Your task to perform on an android device: turn off translation in the chrome app Image 0: 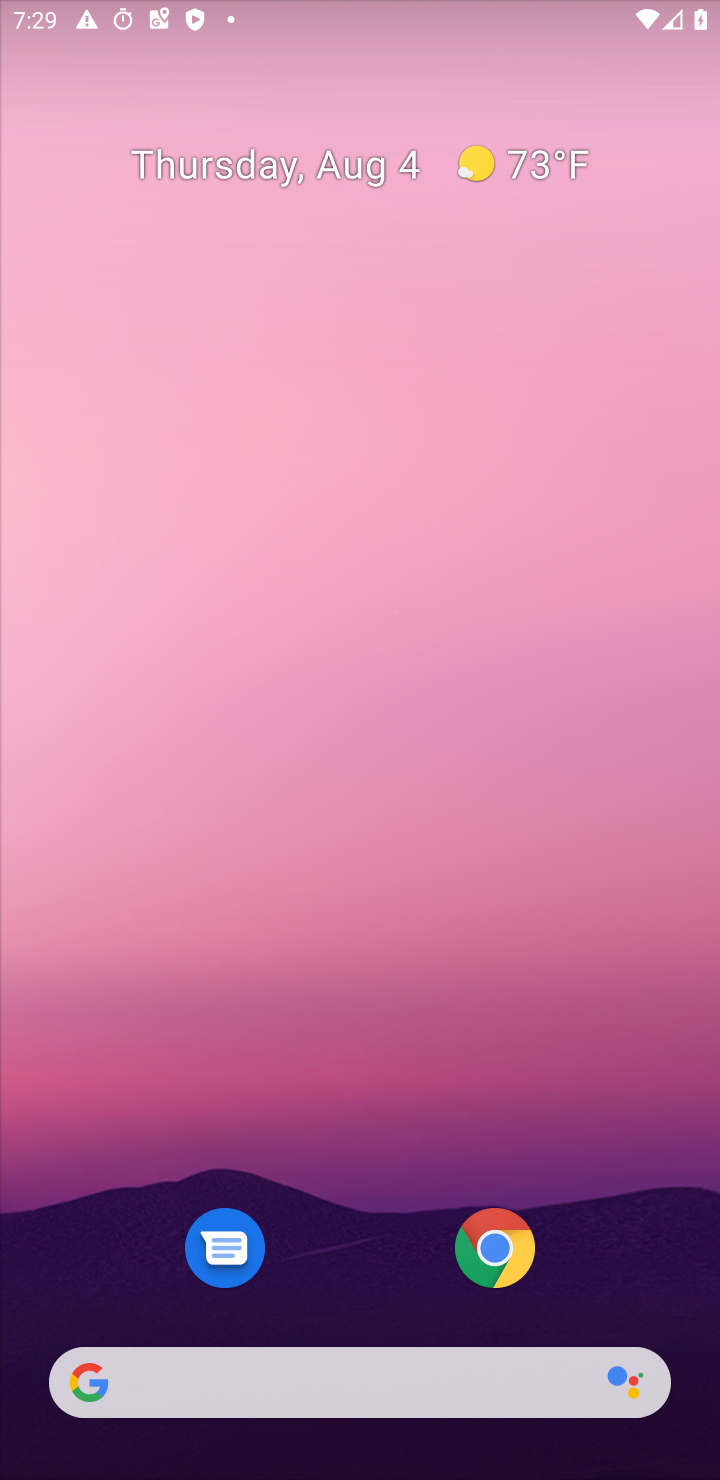
Step 0: press home button
Your task to perform on an android device: turn off translation in the chrome app Image 1: 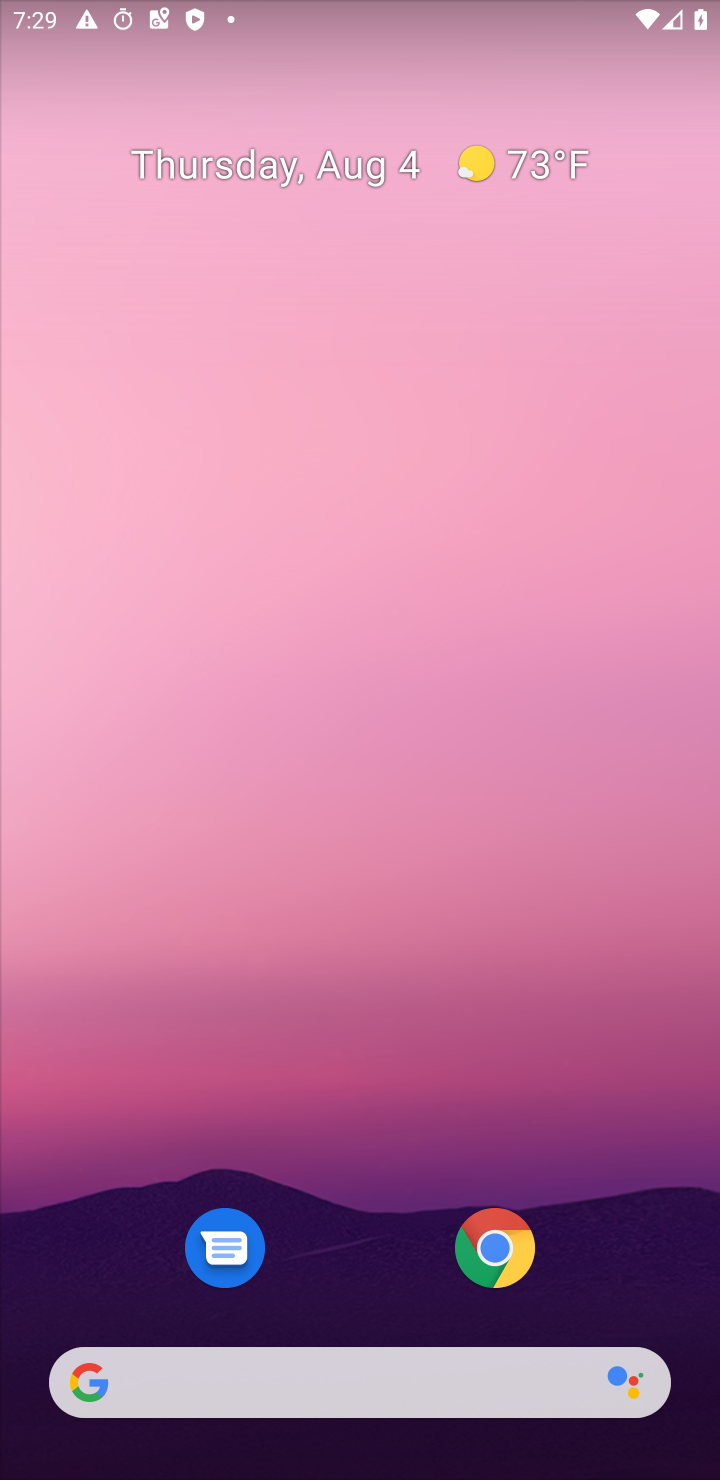
Step 1: drag from (392, 1401) to (450, 327)
Your task to perform on an android device: turn off translation in the chrome app Image 2: 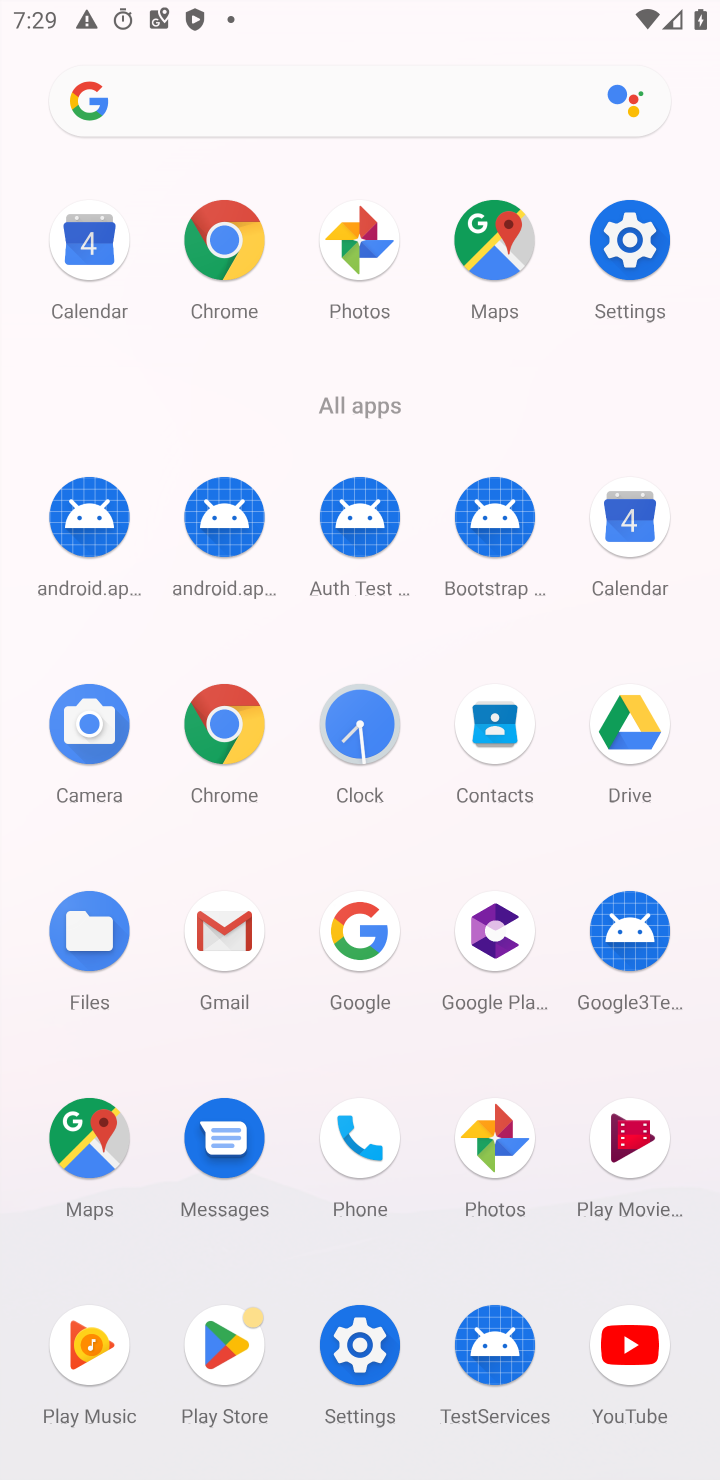
Step 2: click (228, 268)
Your task to perform on an android device: turn off translation in the chrome app Image 3: 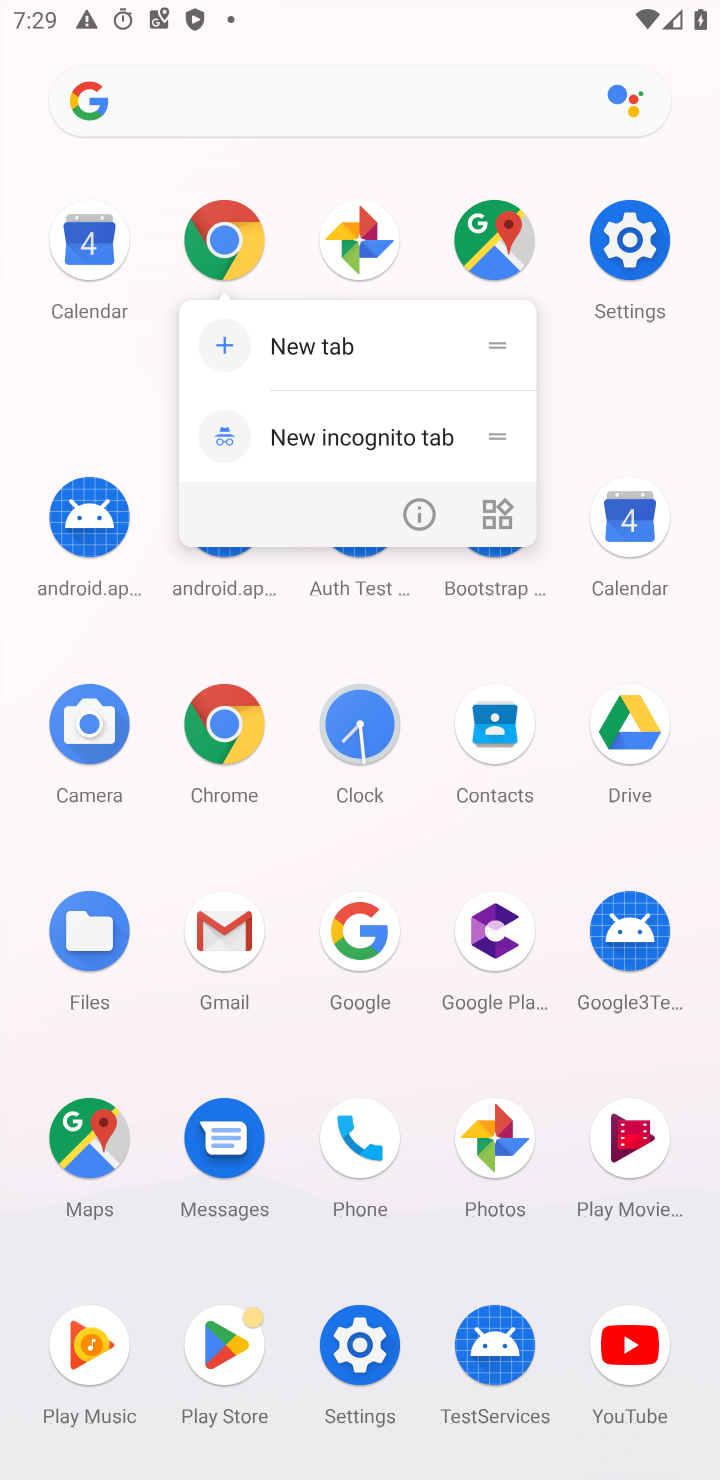
Step 3: click (224, 233)
Your task to perform on an android device: turn off translation in the chrome app Image 4: 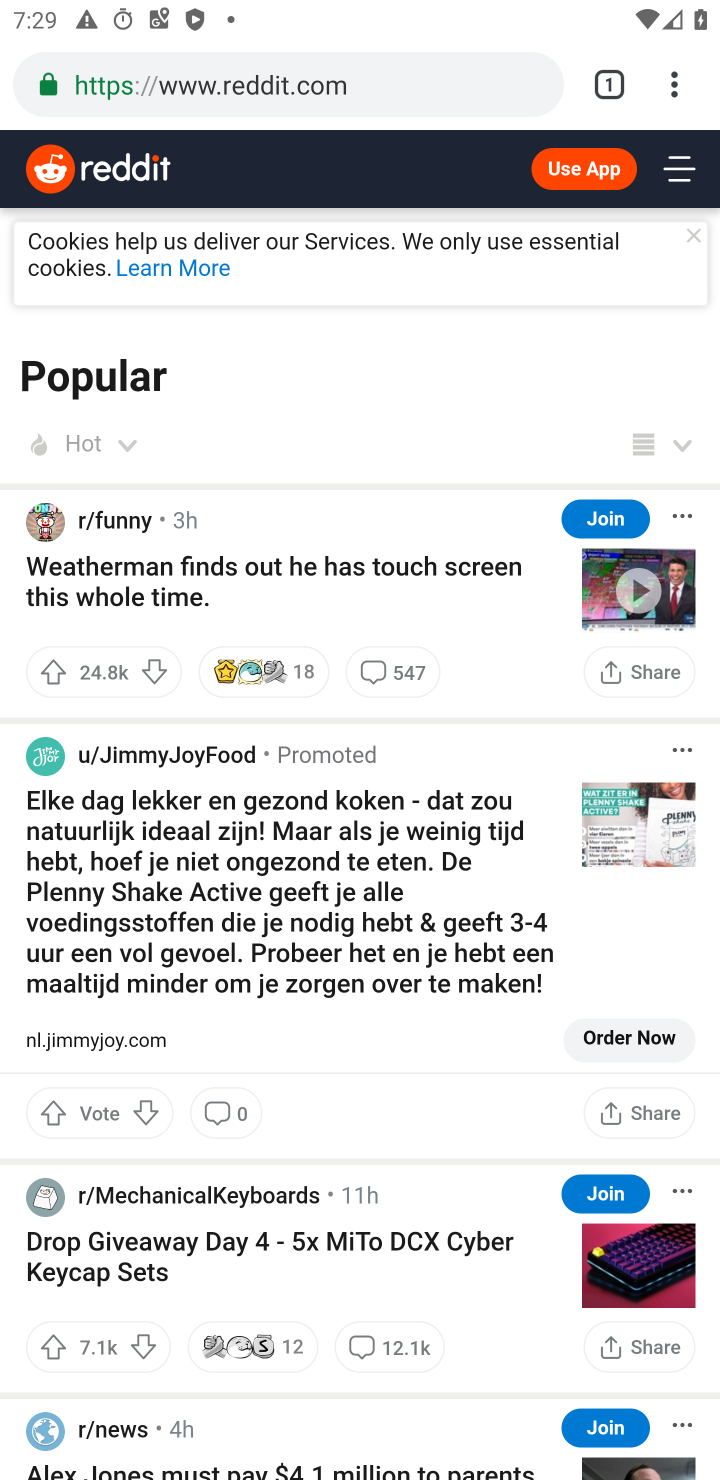
Step 4: click (678, 89)
Your task to perform on an android device: turn off translation in the chrome app Image 5: 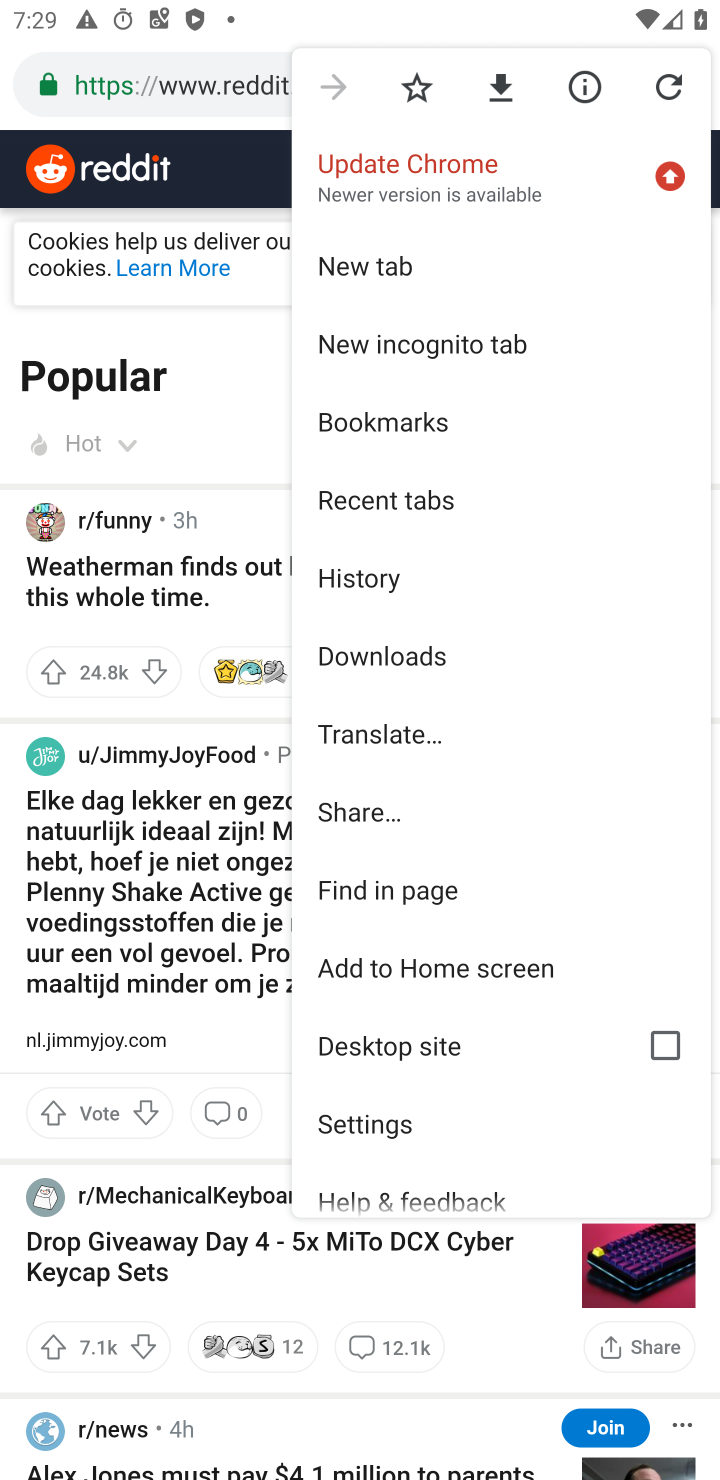
Step 5: click (404, 1118)
Your task to perform on an android device: turn off translation in the chrome app Image 6: 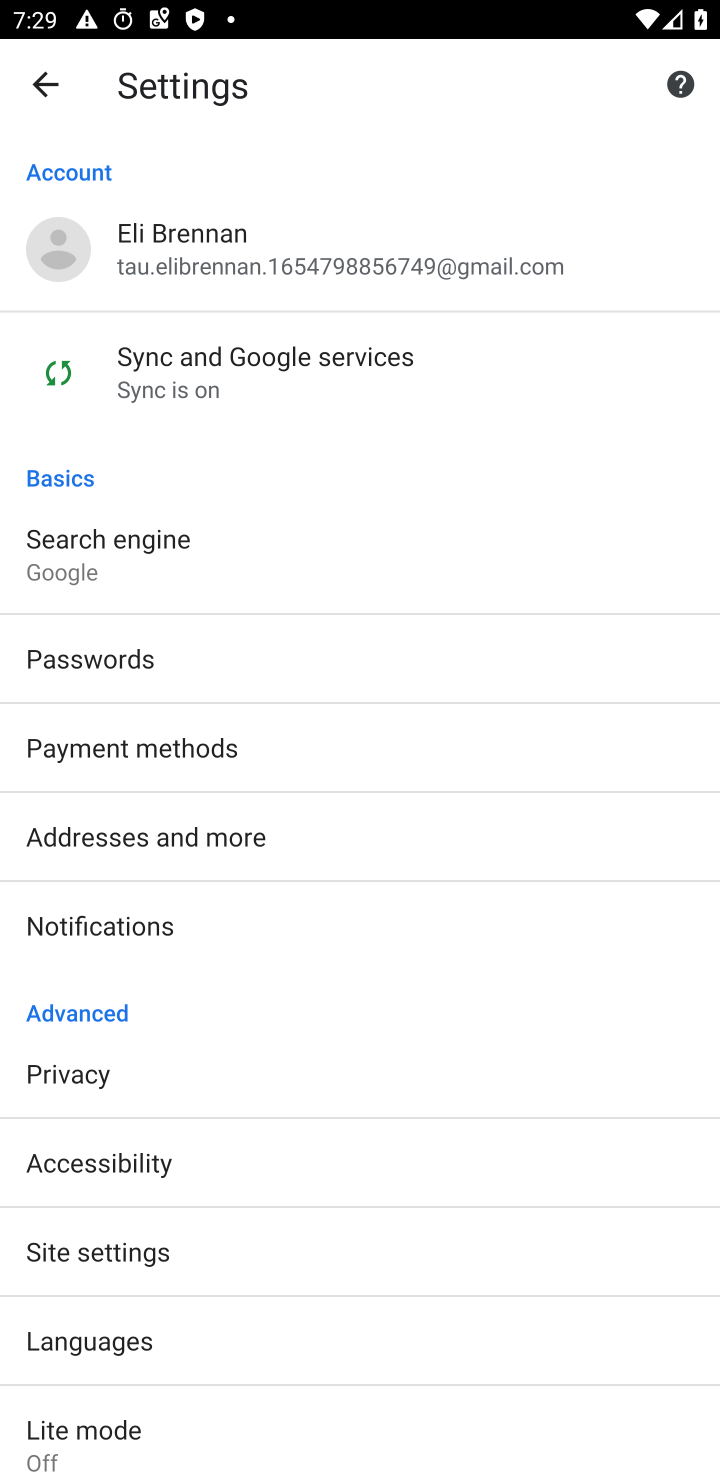
Step 6: click (121, 1331)
Your task to perform on an android device: turn off translation in the chrome app Image 7: 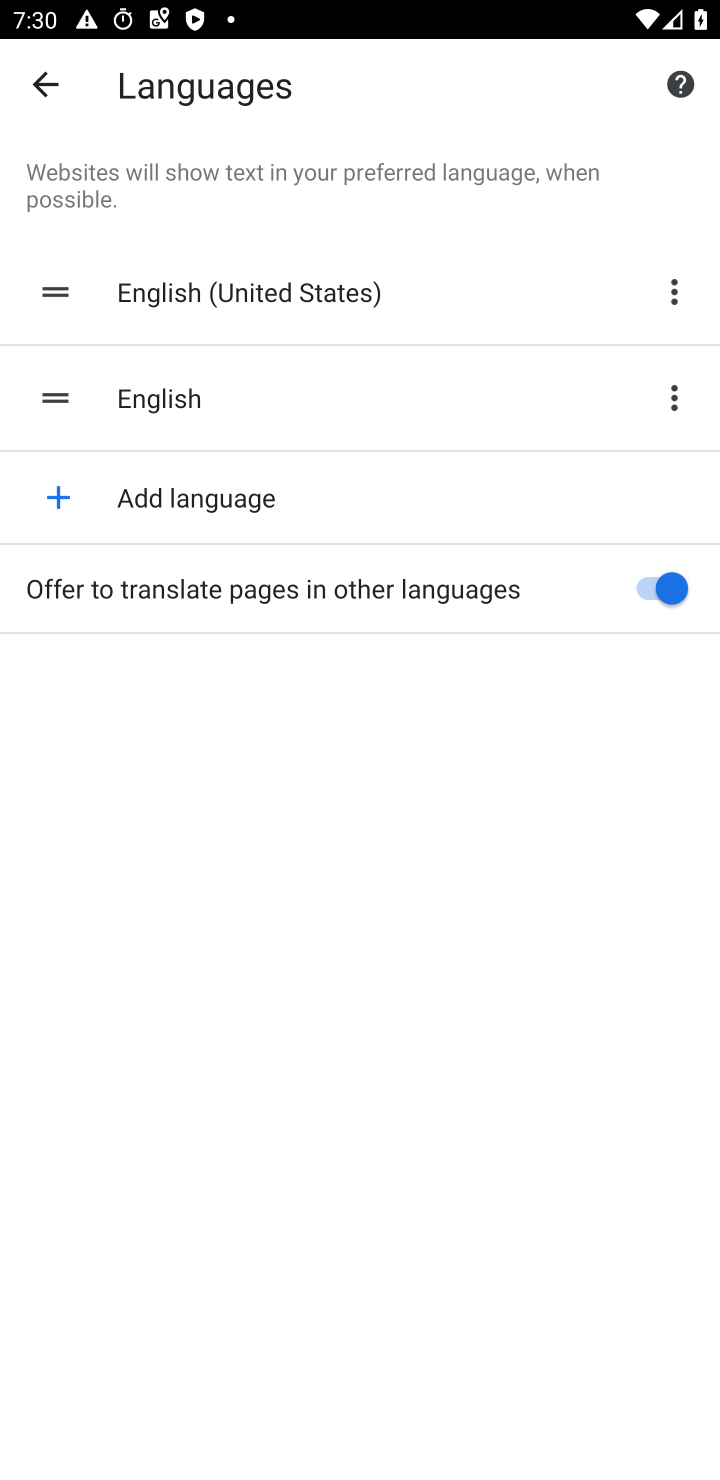
Step 7: click (575, 590)
Your task to perform on an android device: turn off translation in the chrome app Image 8: 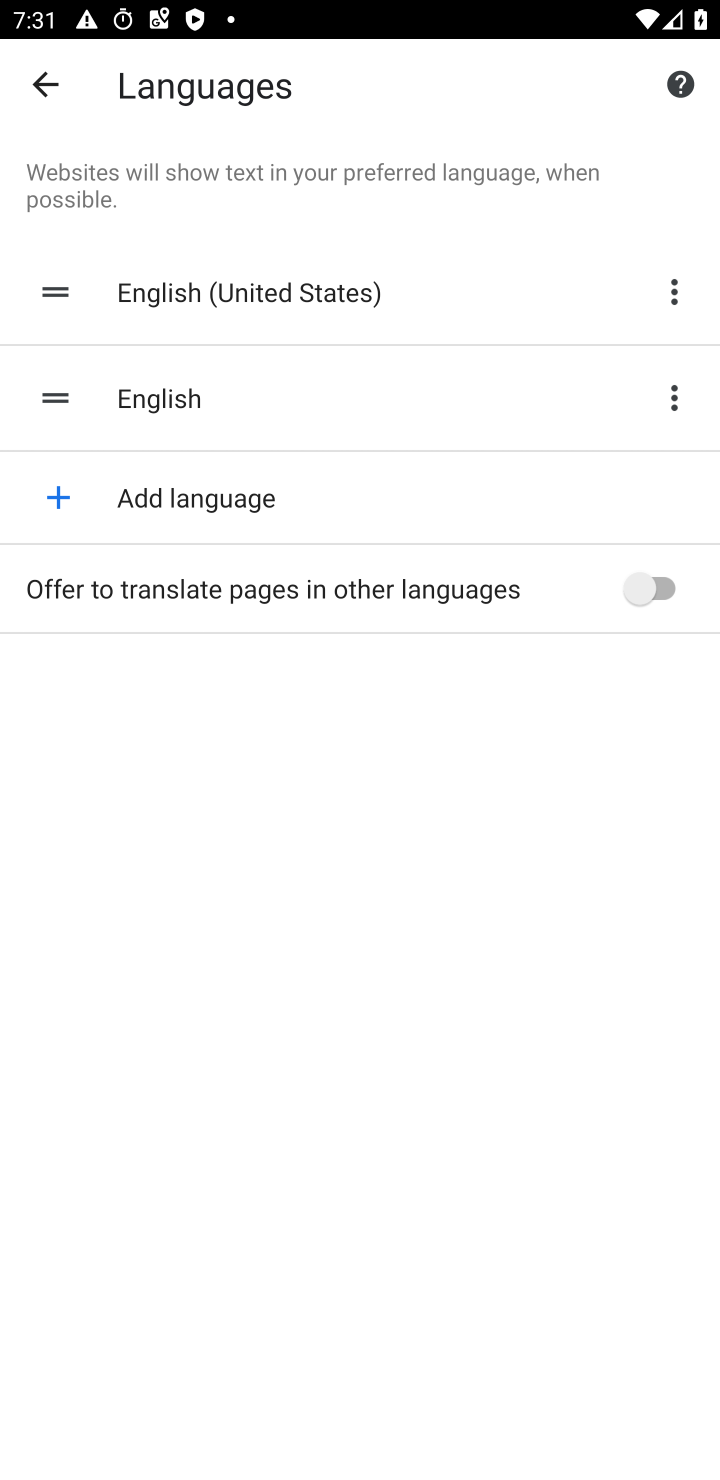
Step 8: task complete